Your task to perform on an android device: Go to location settings Image 0: 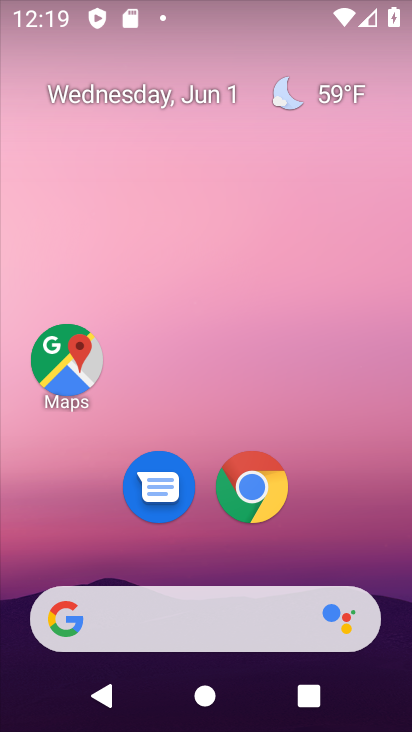
Step 0: drag from (215, 454) to (219, 99)
Your task to perform on an android device: Go to location settings Image 1: 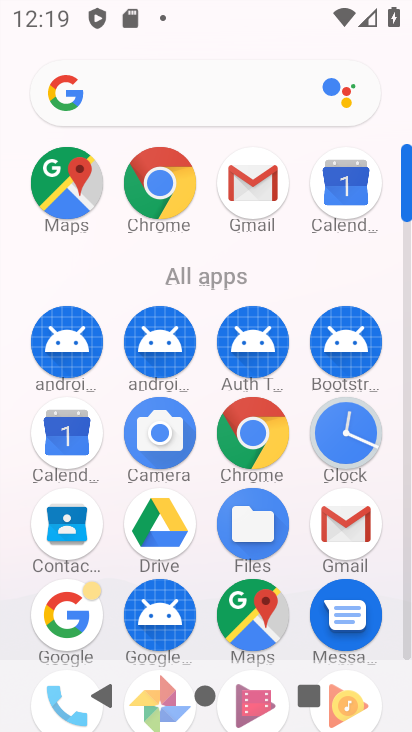
Step 1: drag from (173, 599) to (216, 191)
Your task to perform on an android device: Go to location settings Image 2: 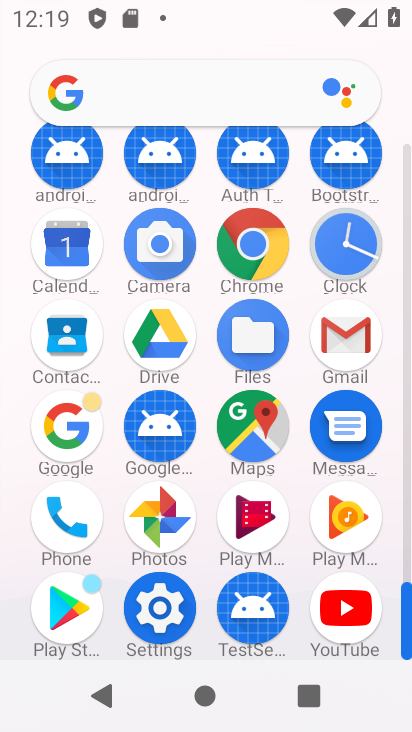
Step 2: click (162, 624)
Your task to perform on an android device: Go to location settings Image 3: 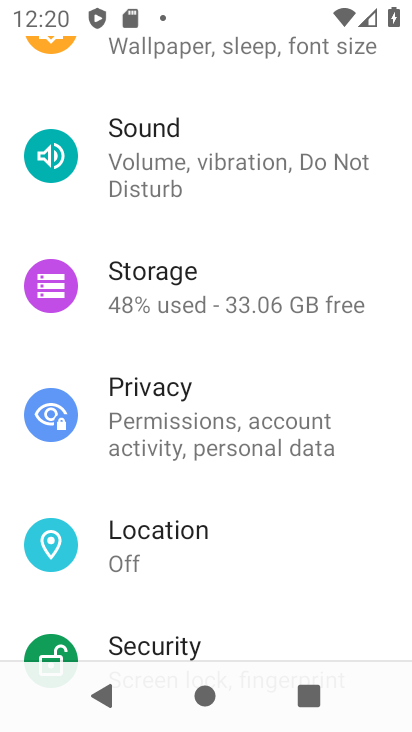
Step 3: click (146, 539)
Your task to perform on an android device: Go to location settings Image 4: 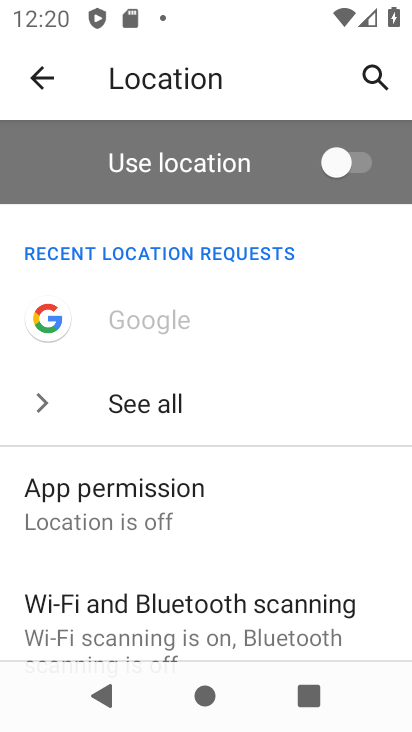
Step 4: task complete